Your task to perform on an android device: Open battery settings Image 0: 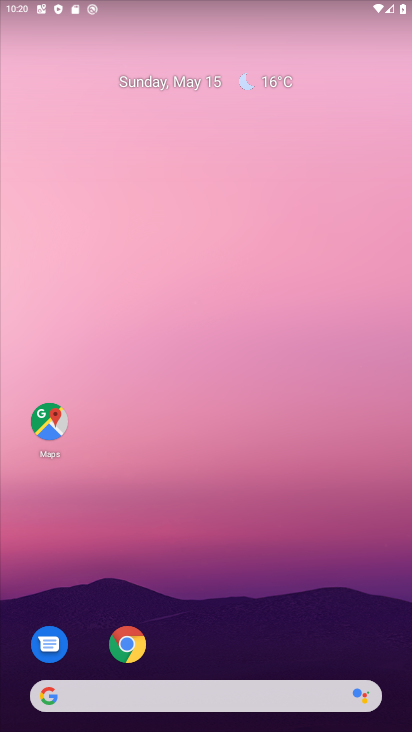
Step 0: drag from (294, 666) to (279, 44)
Your task to perform on an android device: Open battery settings Image 1: 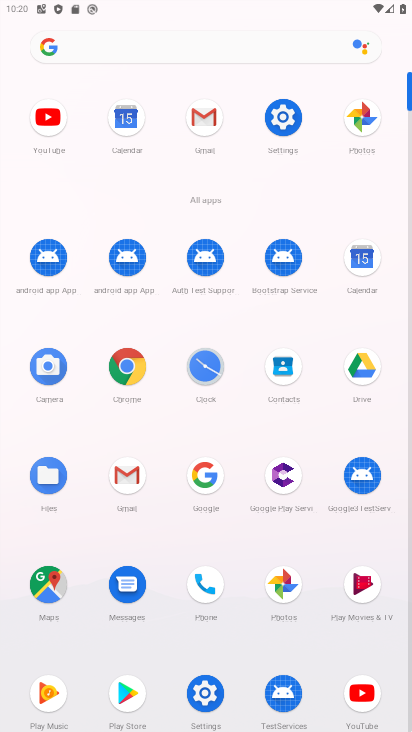
Step 1: click (274, 133)
Your task to perform on an android device: Open battery settings Image 2: 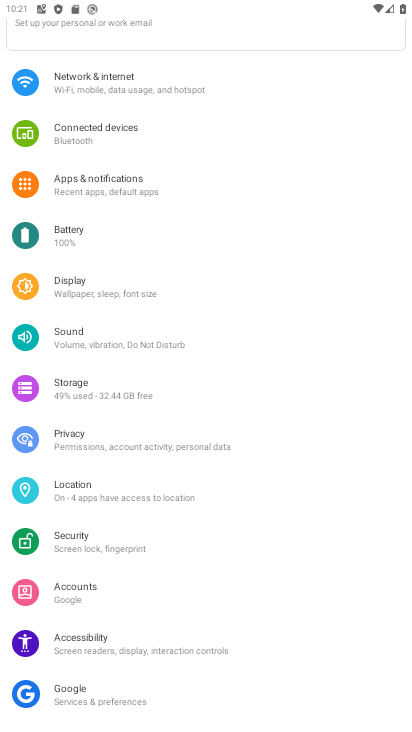
Step 2: click (89, 235)
Your task to perform on an android device: Open battery settings Image 3: 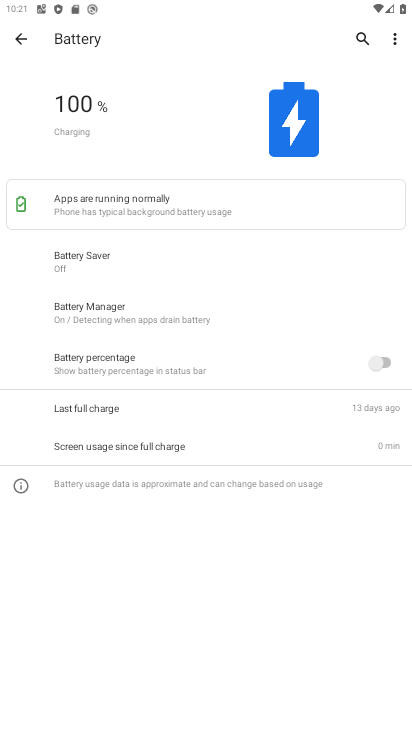
Step 3: task complete